Your task to perform on an android device: Open the calendar app, open the side menu, and click the "Day" option Image 0: 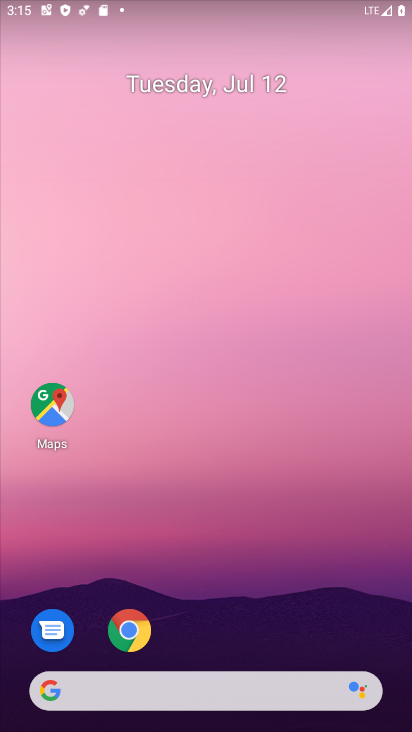
Step 0: drag from (136, 666) to (192, 53)
Your task to perform on an android device: Open the calendar app, open the side menu, and click the "Day" option Image 1: 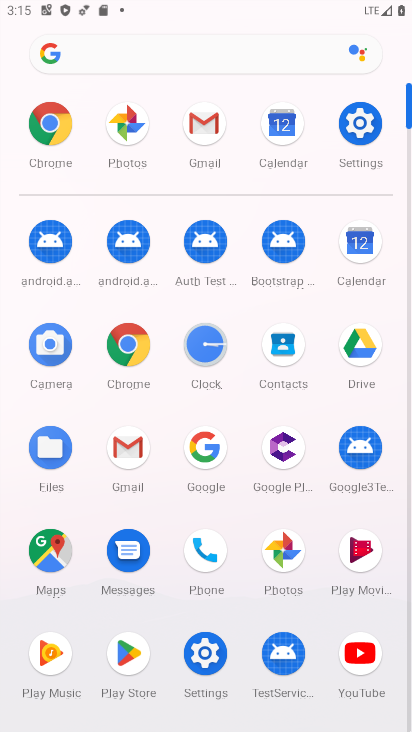
Step 1: click (369, 235)
Your task to perform on an android device: Open the calendar app, open the side menu, and click the "Day" option Image 2: 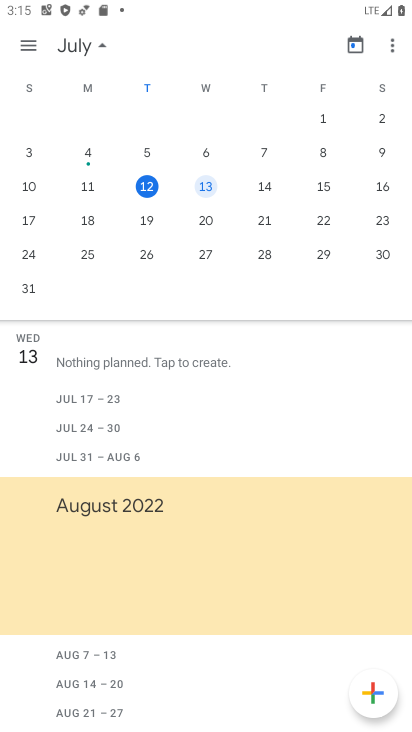
Step 2: click (28, 48)
Your task to perform on an android device: Open the calendar app, open the side menu, and click the "Day" option Image 3: 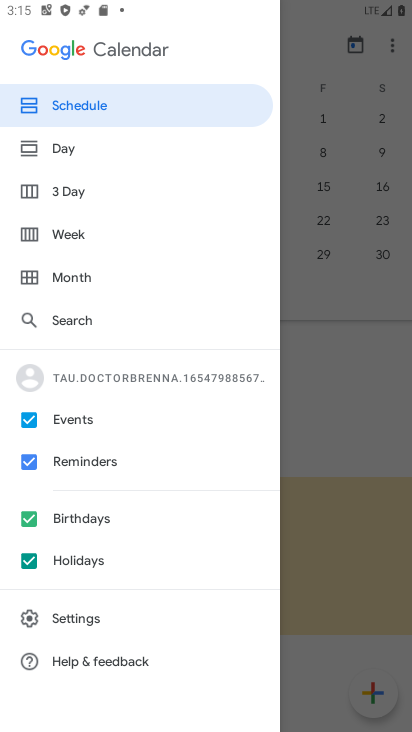
Step 3: click (78, 141)
Your task to perform on an android device: Open the calendar app, open the side menu, and click the "Day" option Image 4: 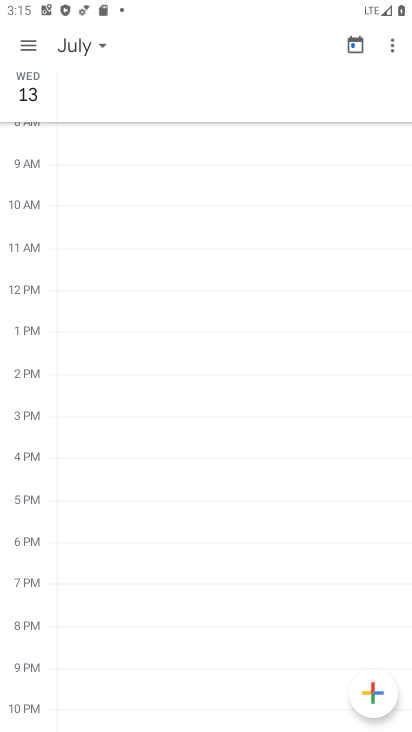
Step 4: task complete